Your task to perform on an android device: set the timer Image 0: 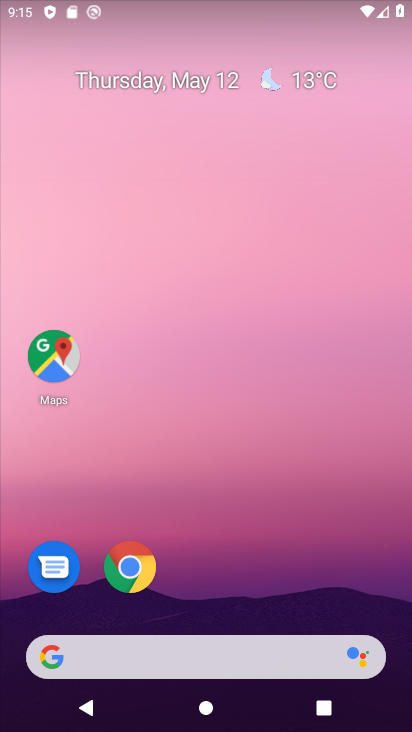
Step 0: drag from (186, 609) to (166, 103)
Your task to perform on an android device: set the timer Image 1: 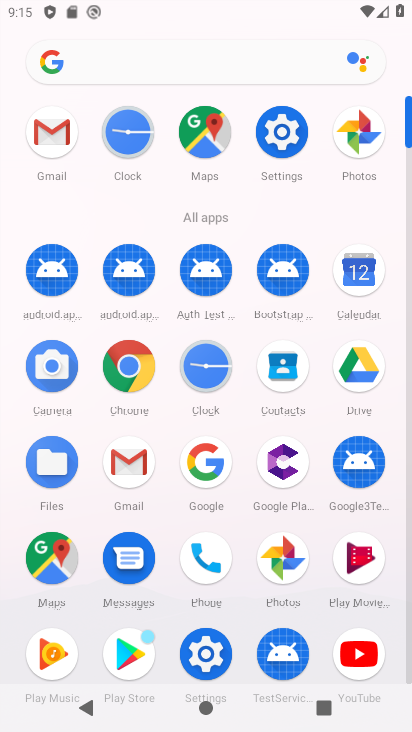
Step 1: click (119, 142)
Your task to perform on an android device: set the timer Image 2: 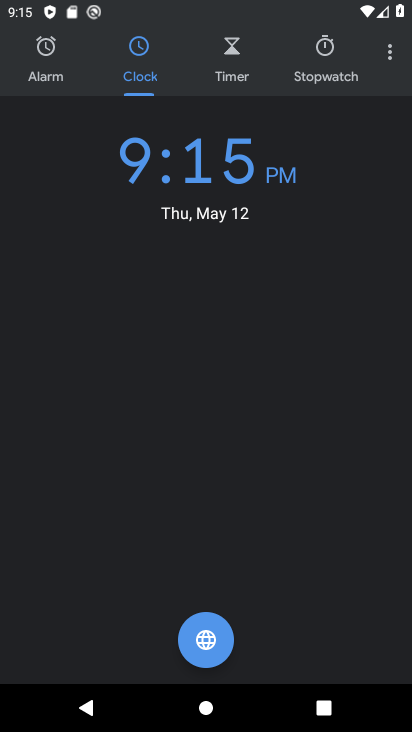
Step 2: click (222, 68)
Your task to perform on an android device: set the timer Image 3: 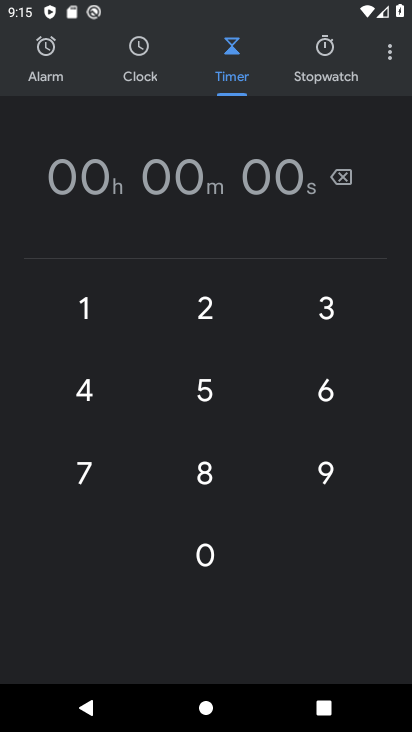
Step 3: click (192, 312)
Your task to perform on an android device: set the timer Image 4: 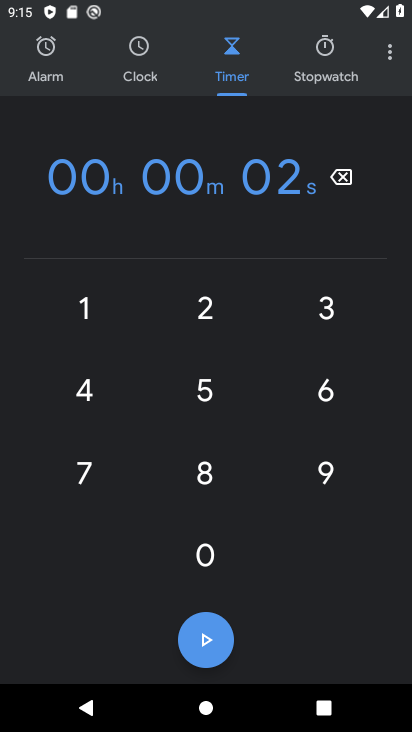
Step 4: click (197, 550)
Your task to perform on an android device: set the timer Image 5: 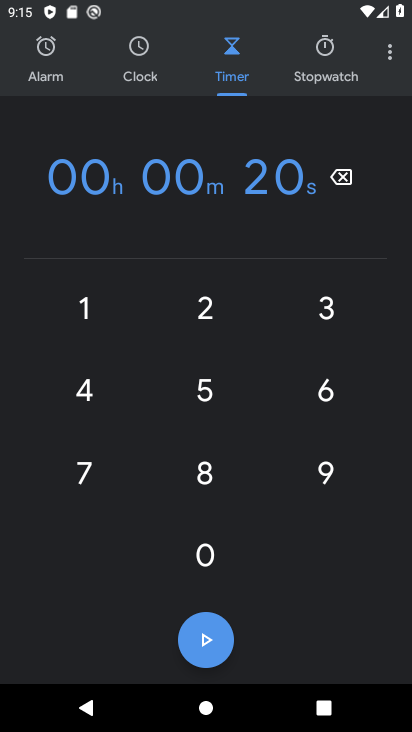
Step 5: click (85, 327)
Your task to perform on an android device: set the timer Image 6: 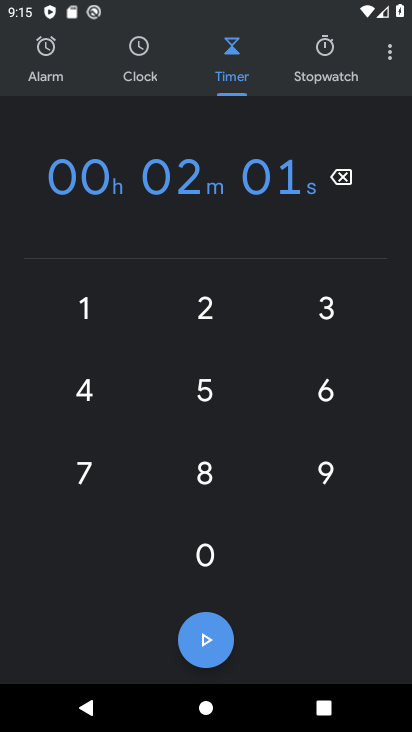
Step 6: click (195, 556)
Your task to perform on an android device: set the timer Image 7: 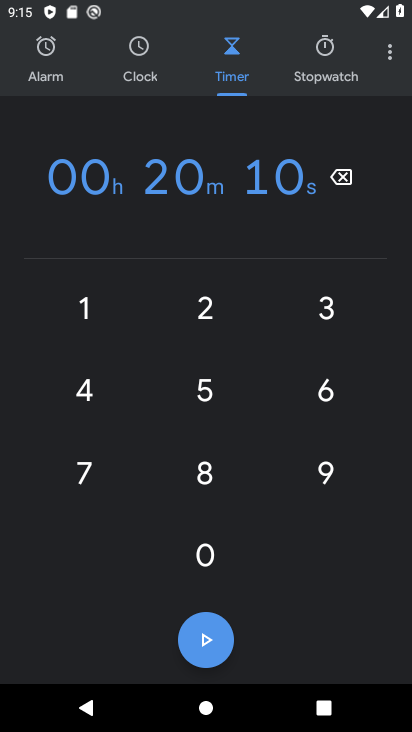
Step 7: click (196, 638)
Your task to perform on an android device: set the timer Image 8: 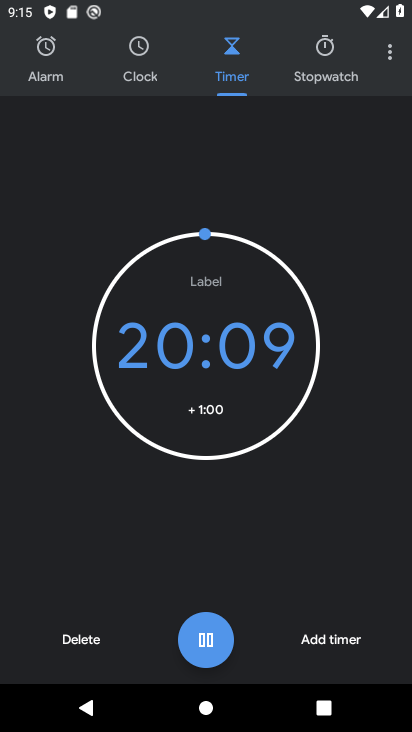
Step 8: click (300, 639)
Your task to perform on an android device: set the timer Image 9: 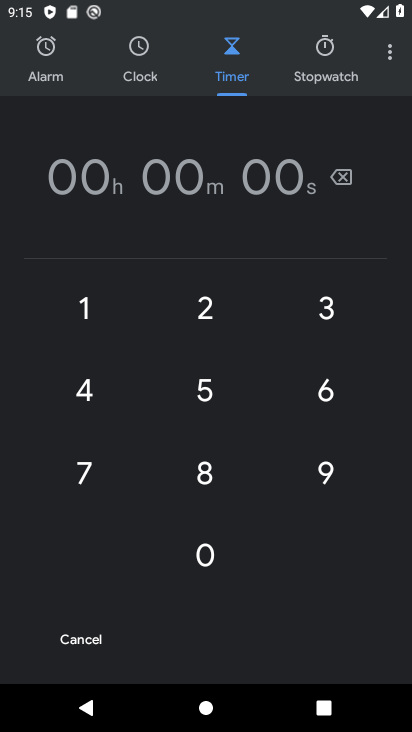
Step 9: task complete